Your task to perform on an android device: turn off javascript in the chrome app Image 0: 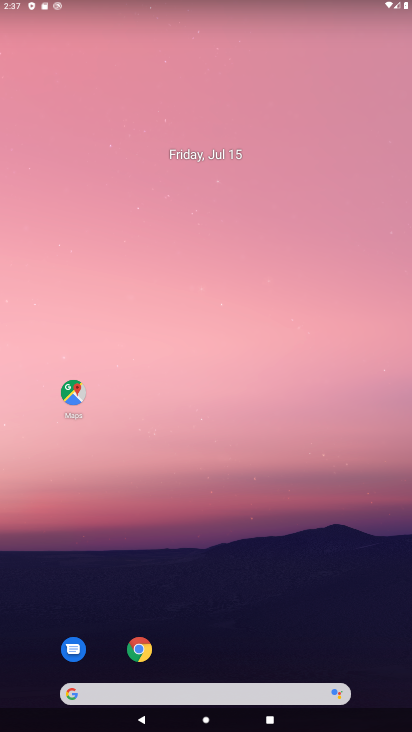
Step 0: click (206, 102)
Your task to perform on an android device: turn off javascript in the chrome app Image 1: 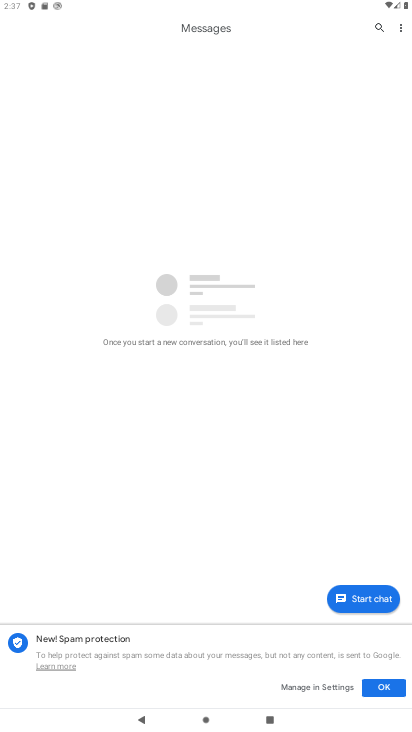
Step 1: press back button
Your task to perform on an android device: turn off javascript in the chrome app Image 2: 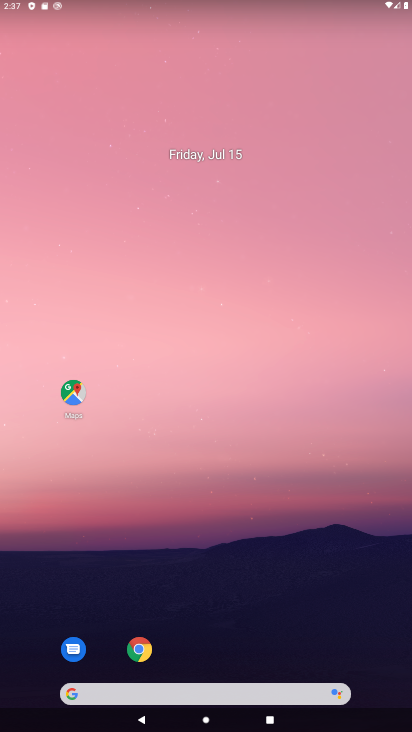
Step 2: drag from (247, 604) to (217, 122)
Your task to perform on an android device: turn off javascript in the chrome app Image 3: 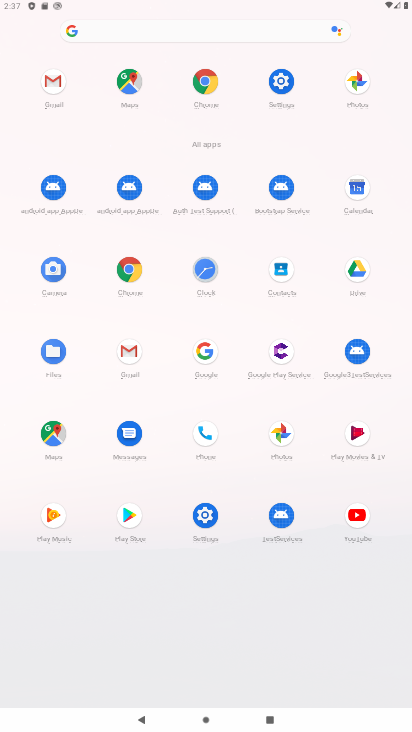
Step 3: click (205, 88)
Your task to perform on an android device: turn off javascript in the chrome app Image 4: 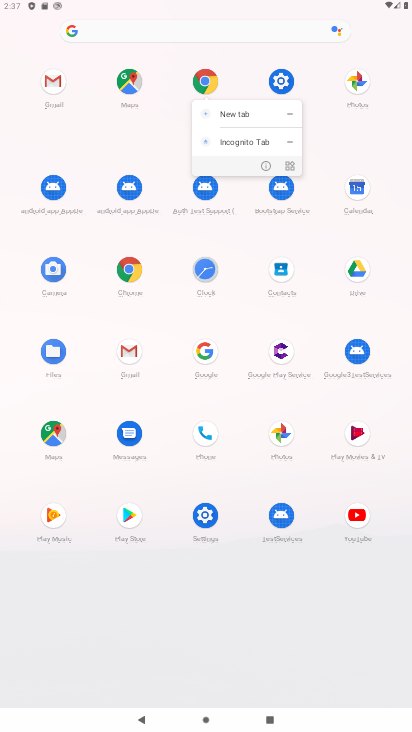
Step 4: click (208, 85)
Your task to perform on an android device: turn off javascript in the chrome app Image 5: 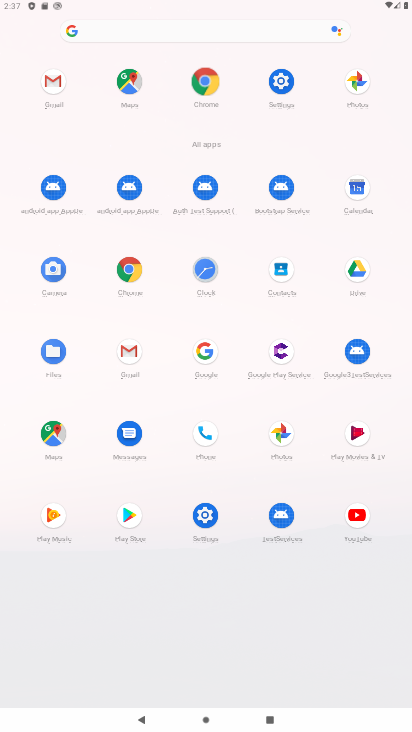
Step 5: click (208, 85)
Your task to perform on an android device: turn off javascript in the chrome app Image 6: 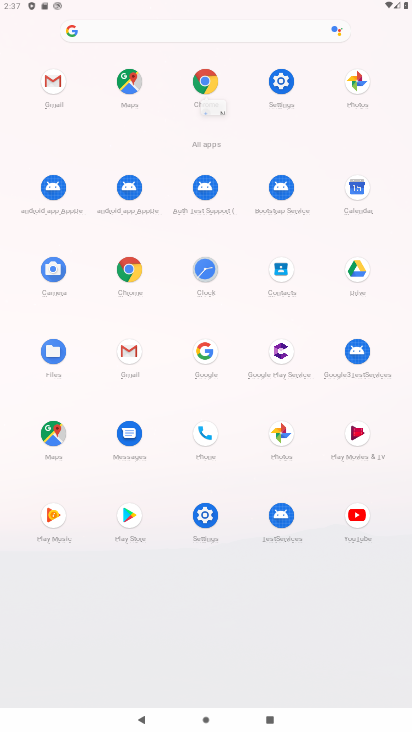
Step 6: click (208, 84)
Your task to perform on an android device: turn off javascript in the chrome app Image 7: 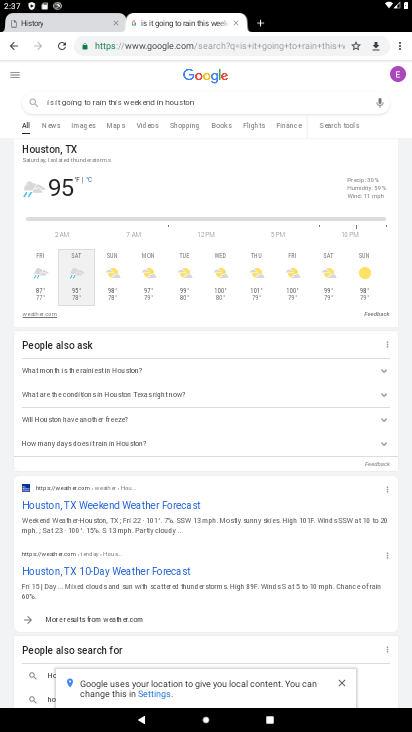
Step 7: drag from (390, 45) to (252, 412)
Your task to perform on an android device: turn off javascript in the chrome app Image 8: 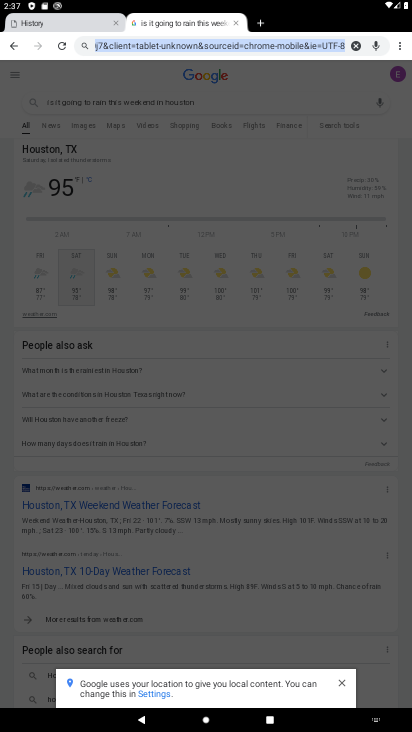
Step 8: drag from (399, 39) to (303, 287)
Your task to perform on an android device: turn off javascript in the chrome app Image 9: 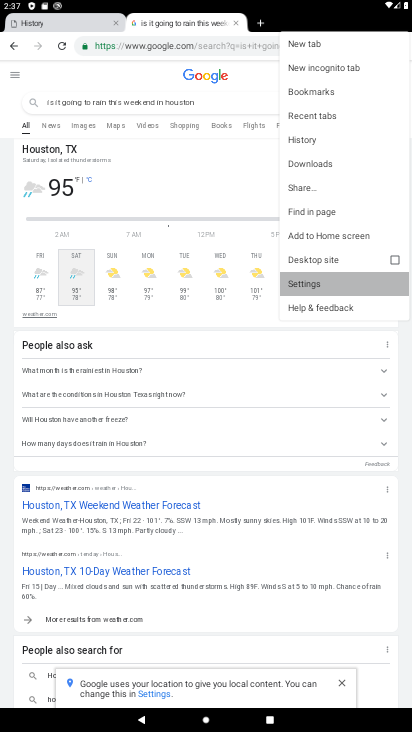
Step 9: click (302, 287)
Your task to perform on an android device: turn off javascript in the chrome app Image 10: 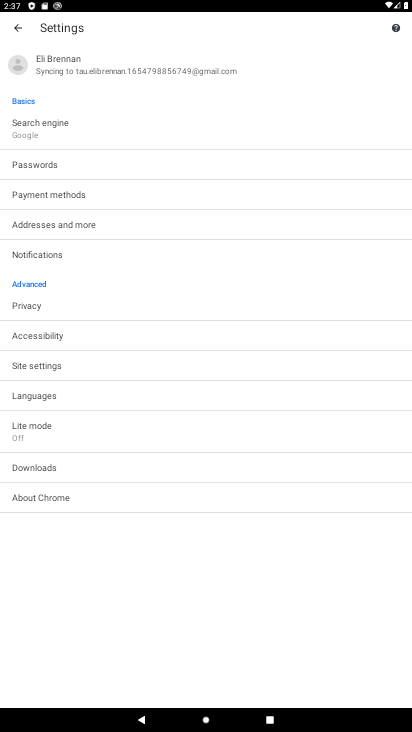
Step 10: click (35, 365)
Your task to perform on an android device: turn off javascript in the chrome app Image 11: 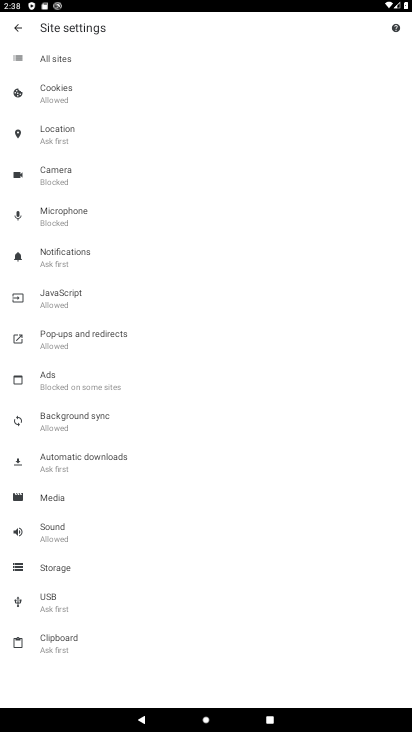
Step 11: click (46, 302)
Your task to perform on an android device: turn off javascript in the chrome app Image 12: 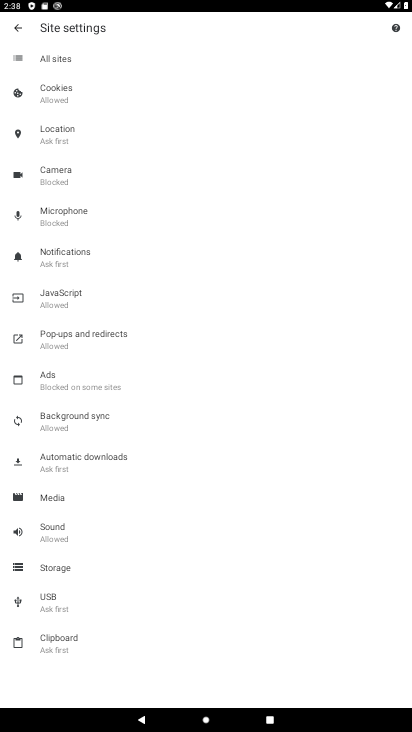
Step 12: click (49, 300)
Your task to perform on an android device: turn off javascript in the chrome app Image 13: 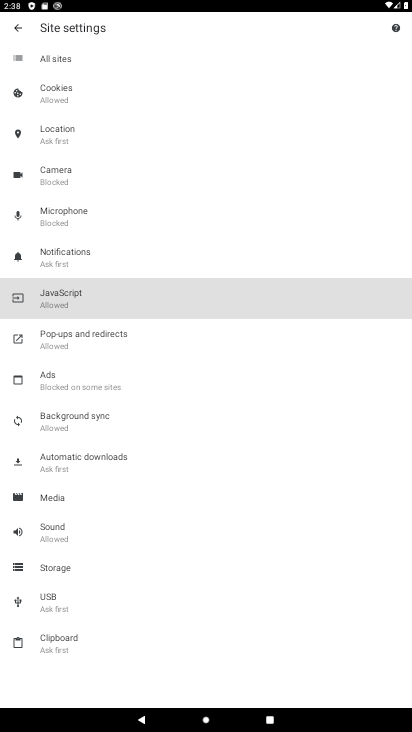
Step 13: click (57, 292)
Your task to perform on an android device: turn off javascript in the chrome app Image 14: 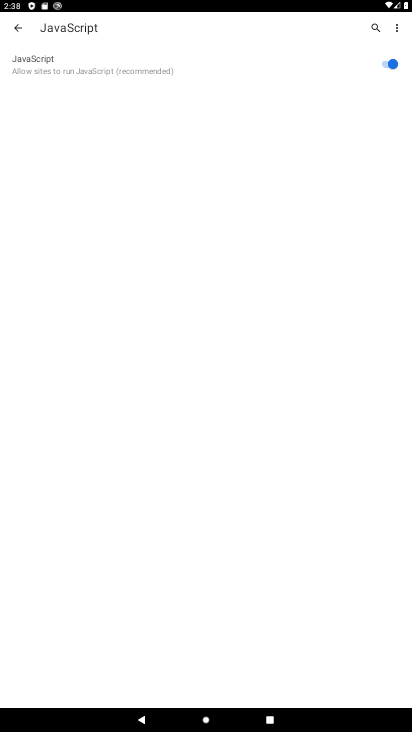
Step 14: click (391, 62)
Your task to perform on an android device: turn off javascript in the chrome app Image 15: 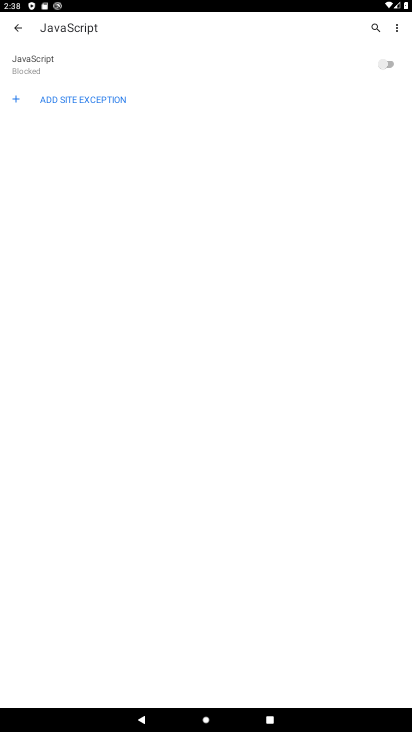
Step 15: task complete